Your task to perform on an android device: Show the shopping cart on target. Image 0: 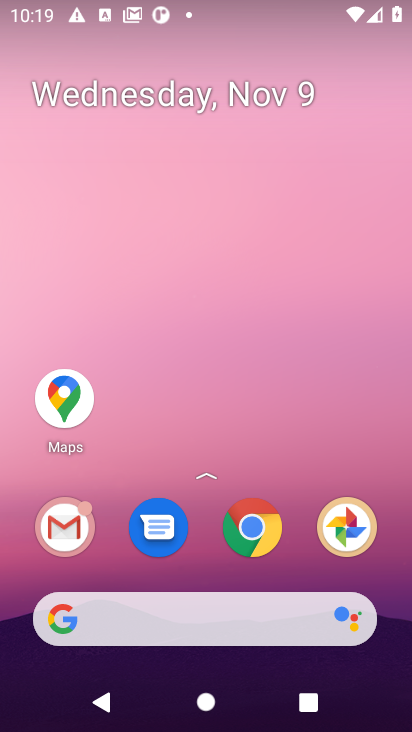
Step 0: click (258, 525)
Your task to perform on an android device: Show the shopping cart on target. Image 1: 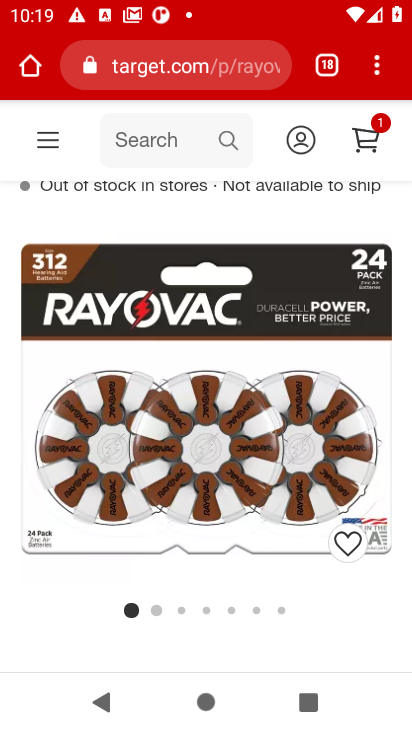
Step 1: click (362, 141)
Your task to perform on an android device: Show the shopping cart on target. Image 2: 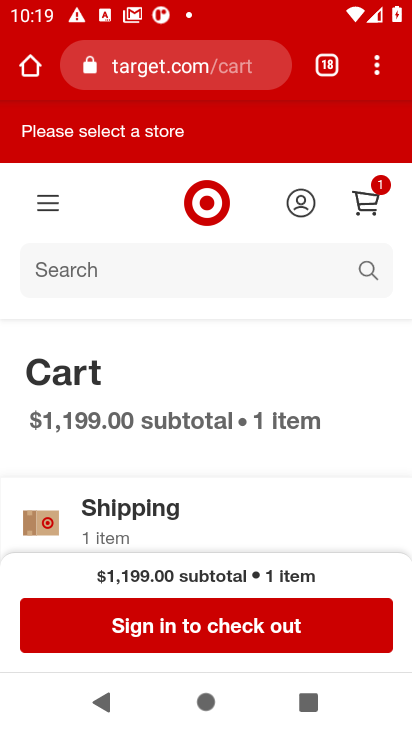
Step 2: task complete